Your task to perform on an android device: Go to sound settings Image 0: 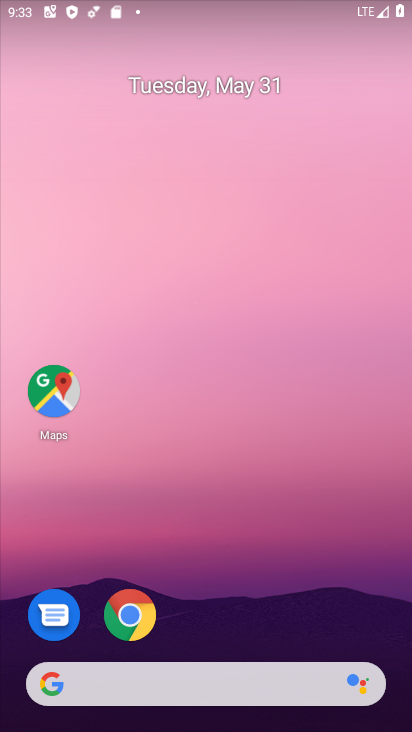
Step 0: drag from (352, 431) to (354, 54)
Your task to perform on an android device: Go to sound settings Image 1: 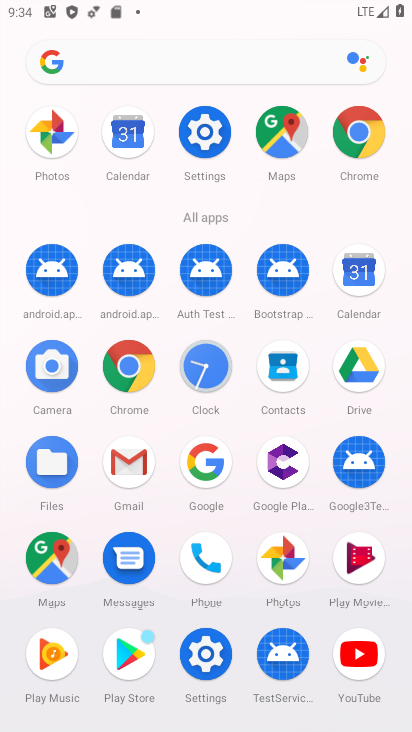
Step 1: click (186, 135)
Your task to perform on an android device: Go to sound settings Image 2: 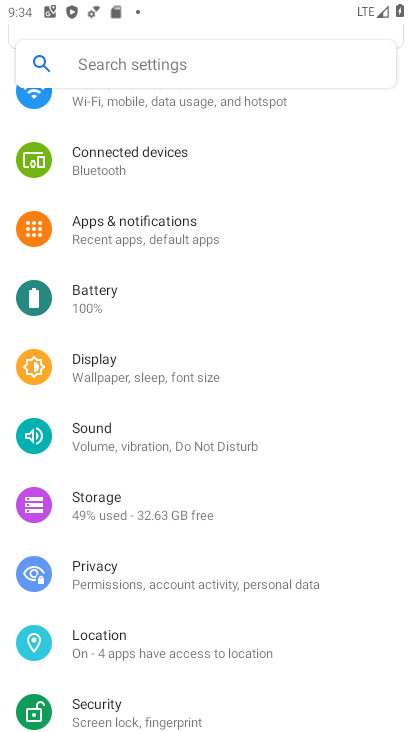
Step 2: click (100, 420)
Your task to perform on an android device: Go to sound settings Image 3: 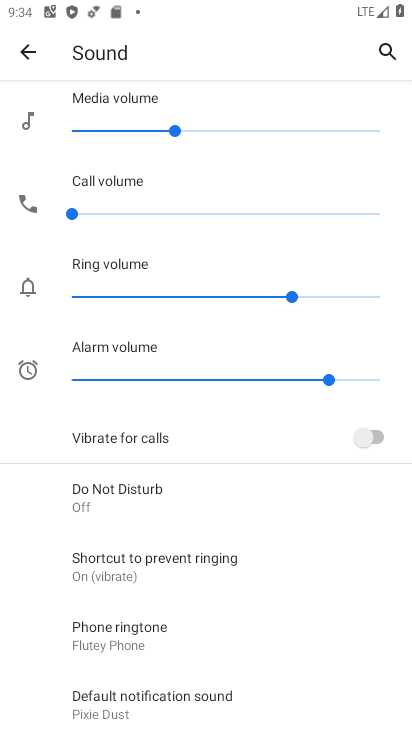
Step 3: task complete